Your task to perform on an android device: Open Google Maps Image 0: 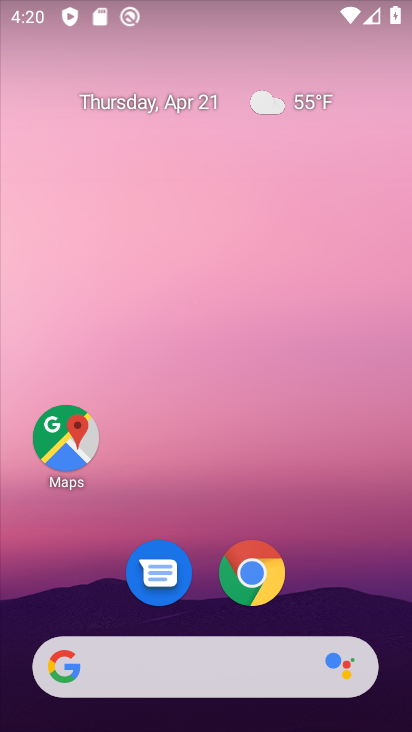
Step 0: click (60, 448)
Your task to perform on an android device: Open Google Maps Image 1: 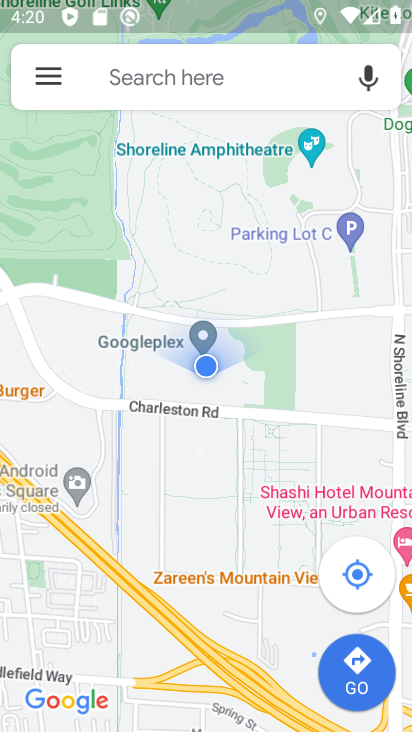
Step 1: task complete